Your task to perform on an android device: delete location history Image 0: 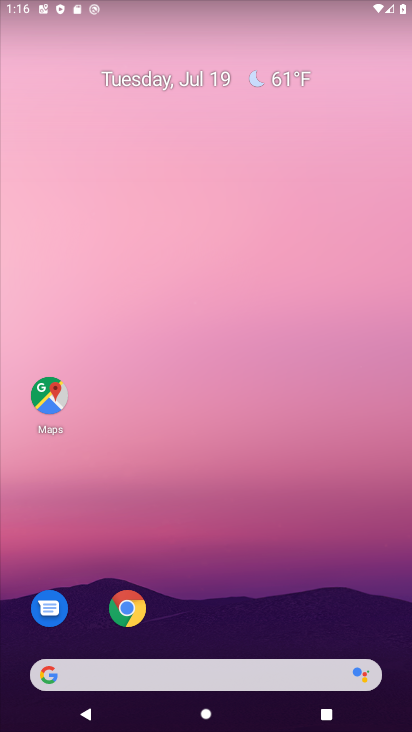
Step 0: drag from (207, 566) to (201, 85)
Your task to perform on an android device: delete location history Image 1: 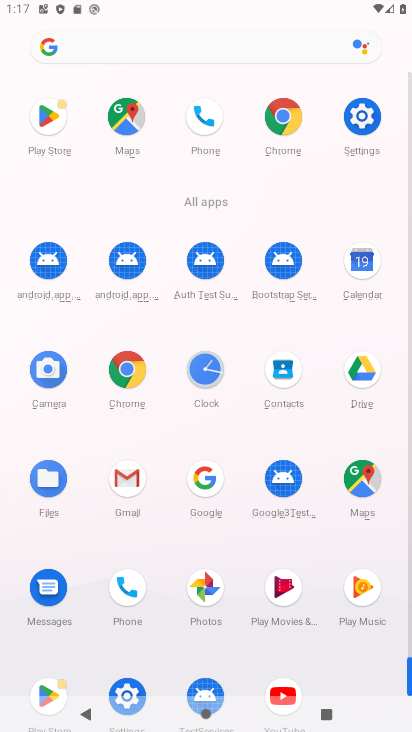
Step 1: click (358, 119)
Your task to perform on an android device: delete location history Image 2: 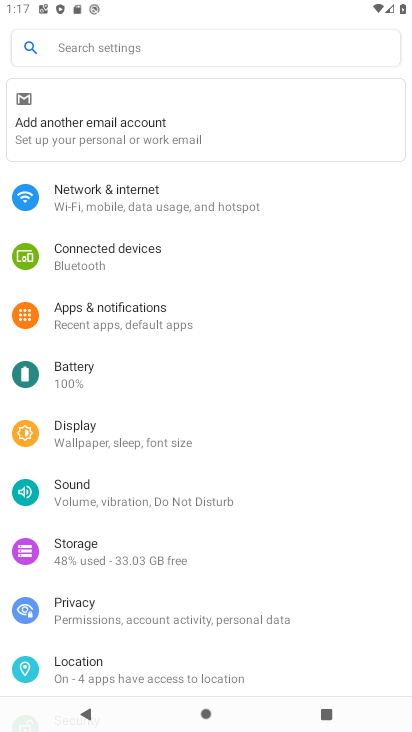
Step 2: click (99, 661)
Your task to perform on an android device: delete location history Image 3: 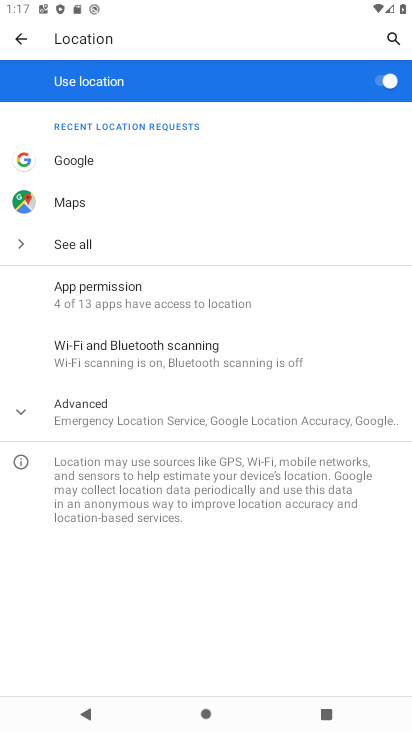
Step 3: click (83, 404)
Your task to perform on an android device: delete location history Image 4: 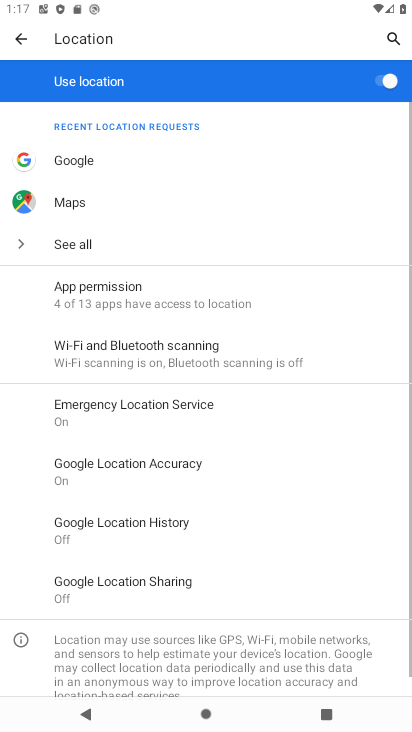
Step 4: click (101, 522)
Your task to perform on an android device: delete location history Image 5: 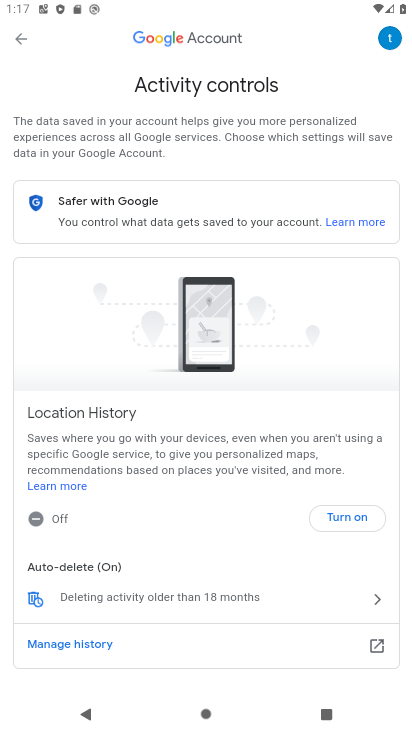
Step 5: click (34, 602)
Your task to perform on an android device: delete location history Image 6: 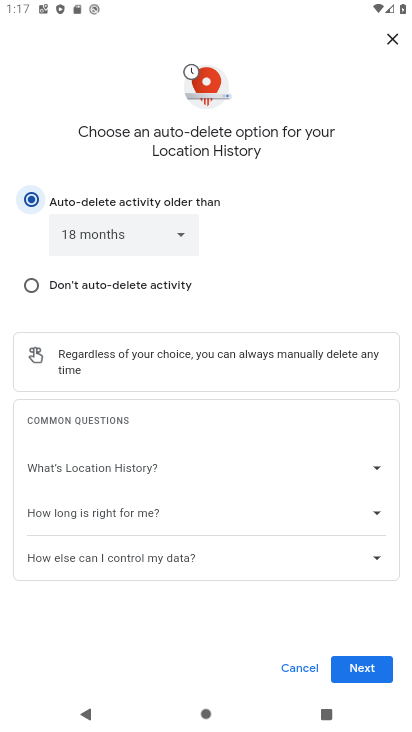
Step 6: click (363, 669)
Your task to perform on an android device: delete location history Image 7: 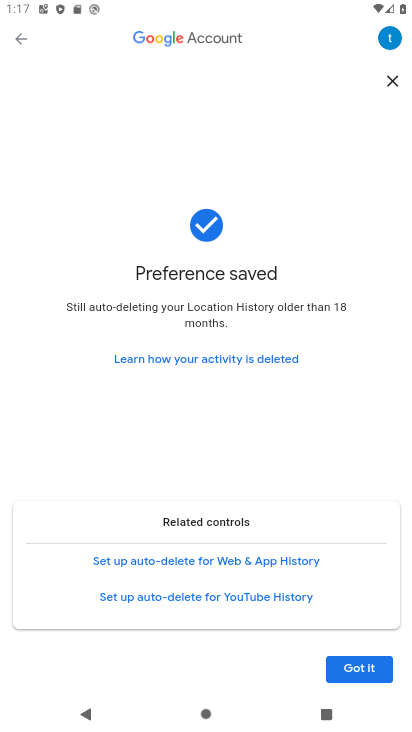
Step 7: click (355, 664)
Your task to perform on an android device: delete location history Image 8: 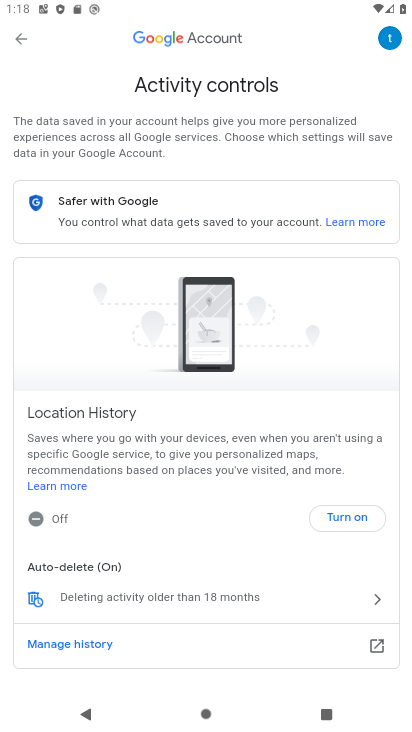
Step 8: task complete